Your task to perform on an android device: Toggle the flashlight Image 0: 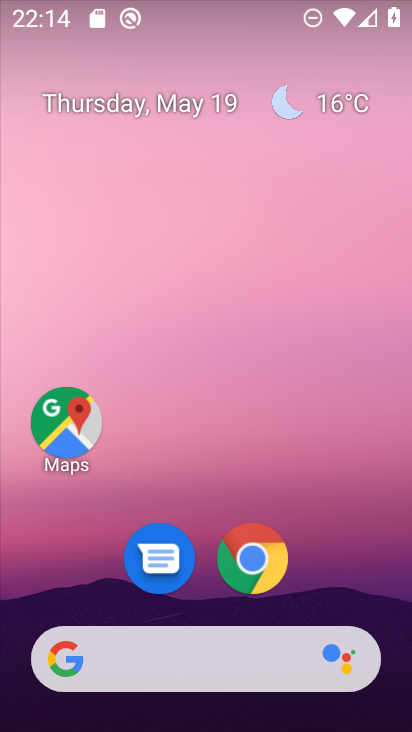
Step 0: drag from (245, 708) to (224, 194)
Your task to perform on an android device: Toggle the flashlight Image 1: 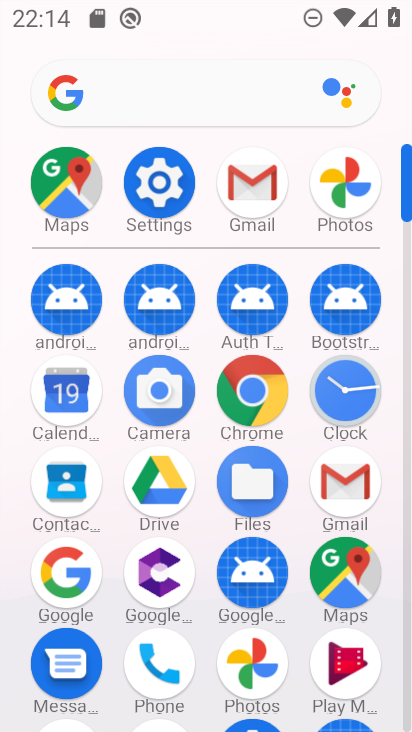
Step 1: click (172, 177)
Your task to perform on an android device: Toggle the flashlight Image 2: 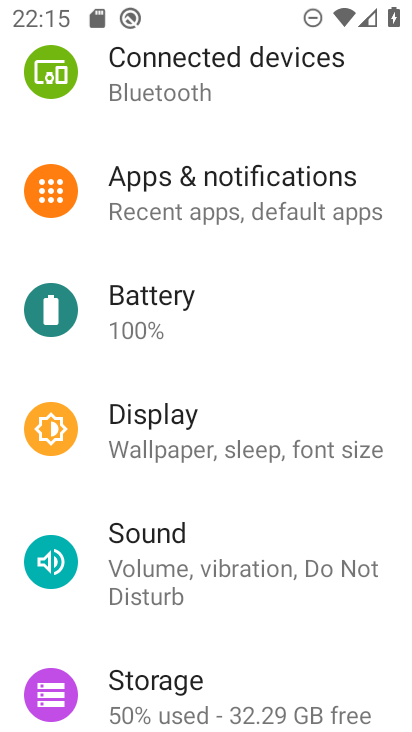
Step 2: task complete